Your task to perform on an android device: Open calendar and show me the first week of next month Image 0: 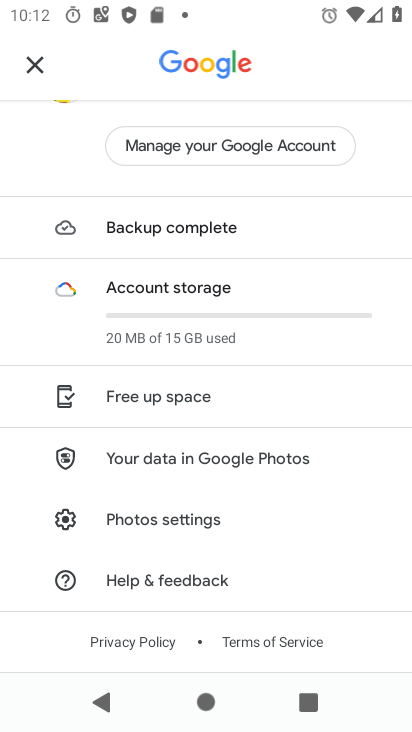
Step 0: press home button
Your task to perform on an android device: Open calendar and show me the first week of next month Image 1: 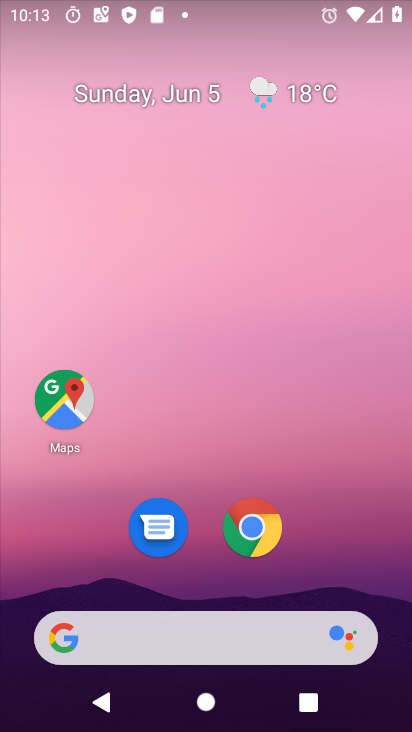
Step 1: drag from (337, 446) to (18, 206)
Your task to perform on an android device: Open calendar and show me the first week of next month Image 2: 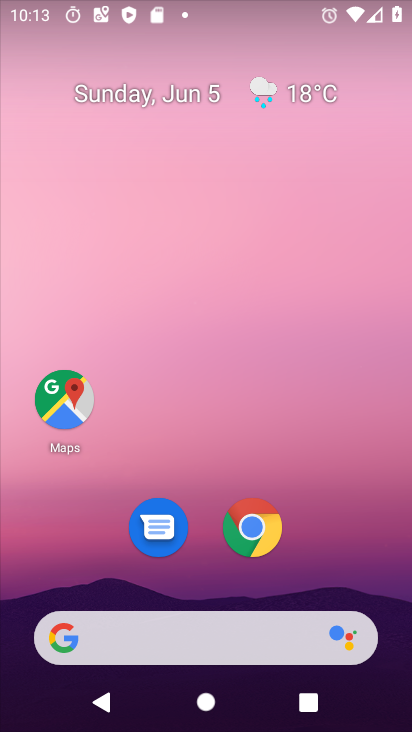
Step 2: drag from (290, 569) to (340, 118)
Your task to perform on an android device: Open calendar and show me the first week of next month Image 3: 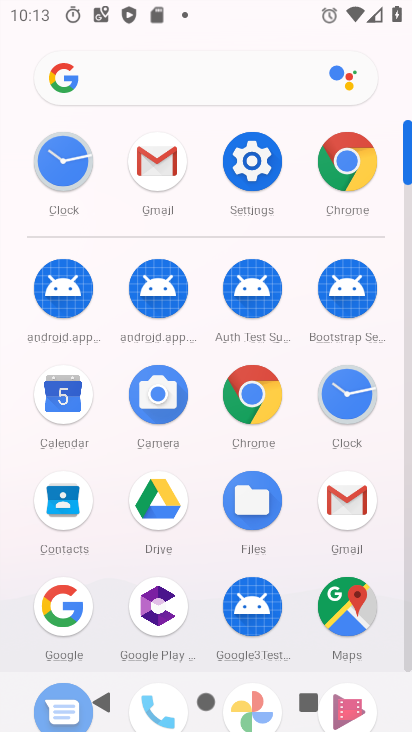
Step 3: click (41, 397)
Your task to perform on an android device: Open calendar and show me the first week of next month Image 4: 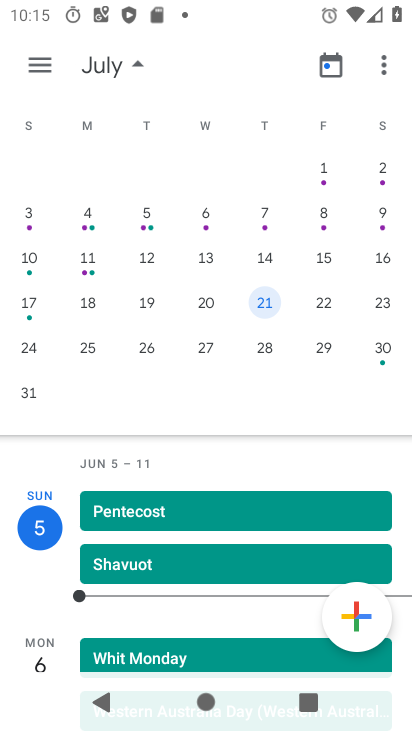
Step 4: task complete